Your task to perform on an android device: Open calendar and show me the first week of next month Image 0: 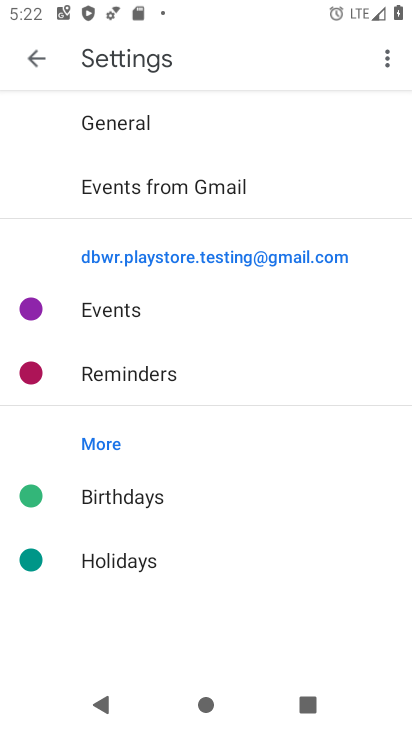
Step 0: press home button
Your task to perform on an android device: Open calendar and show me the first week of next month Image 1: 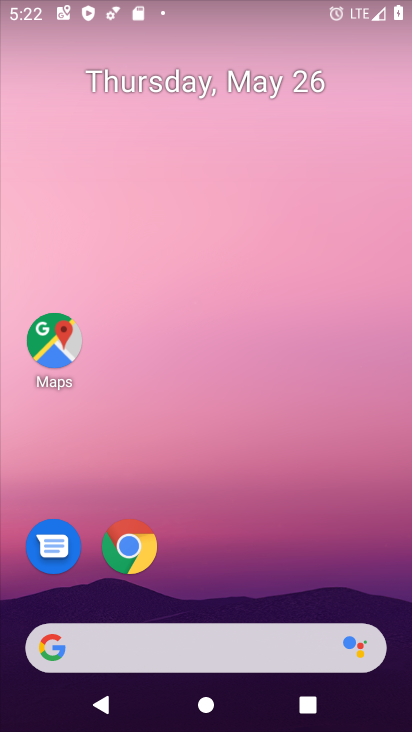
Step 1: drag from (243, 575) to (232, 176)
Your task to perform on an android device: Open calendar and show me the first week of next month Image 2: 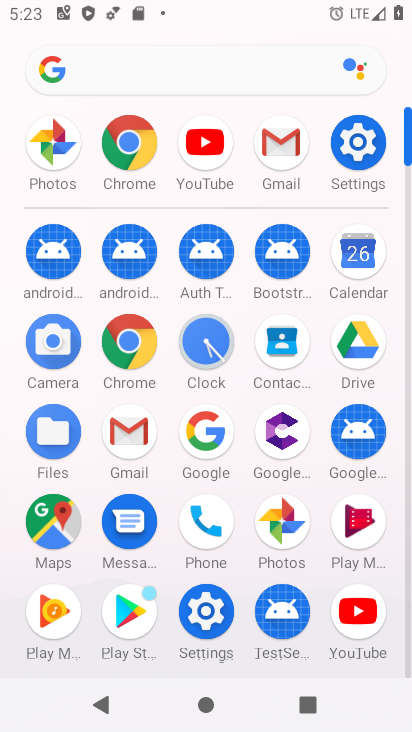
Step 2: click (346, 265)
Your task to perform on an android device: Open calendar and show me the first week of next month Image 3: 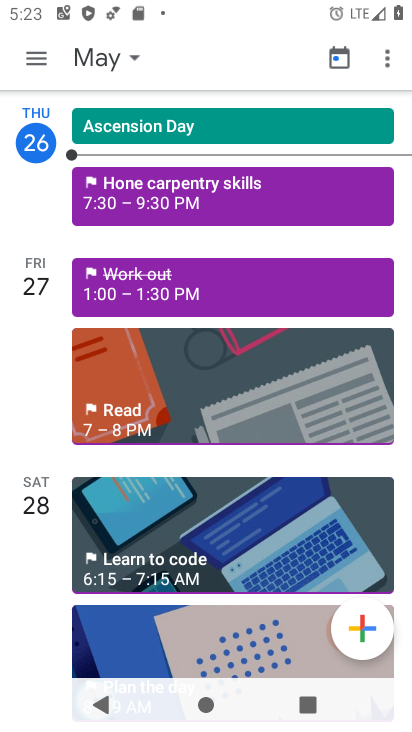
Step 3: click (127, 51)
Your task to perform on an android device: Open calendar and show me the first week of next month Image 4: 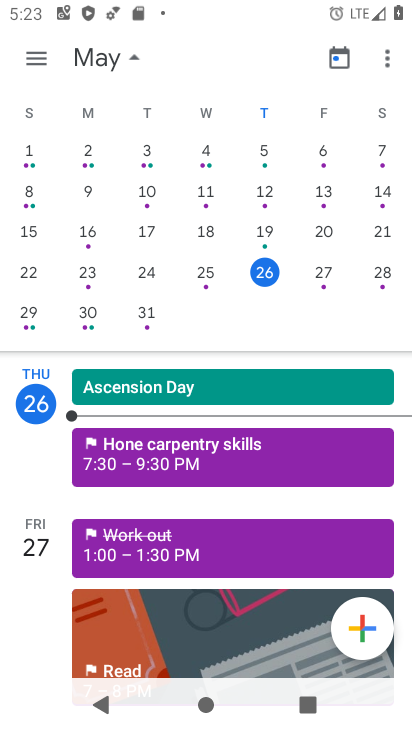
Step 4: task complete